Your task to perform on an android device: check battery use Image 0: 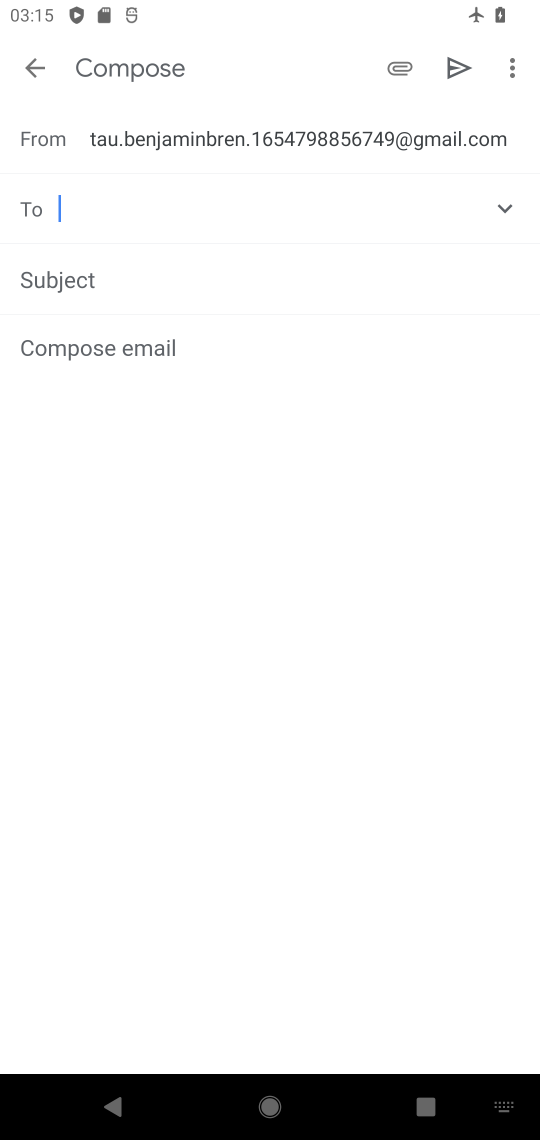
Step 0: press home button
Your task to perform on an android device: check battery use Image 1: 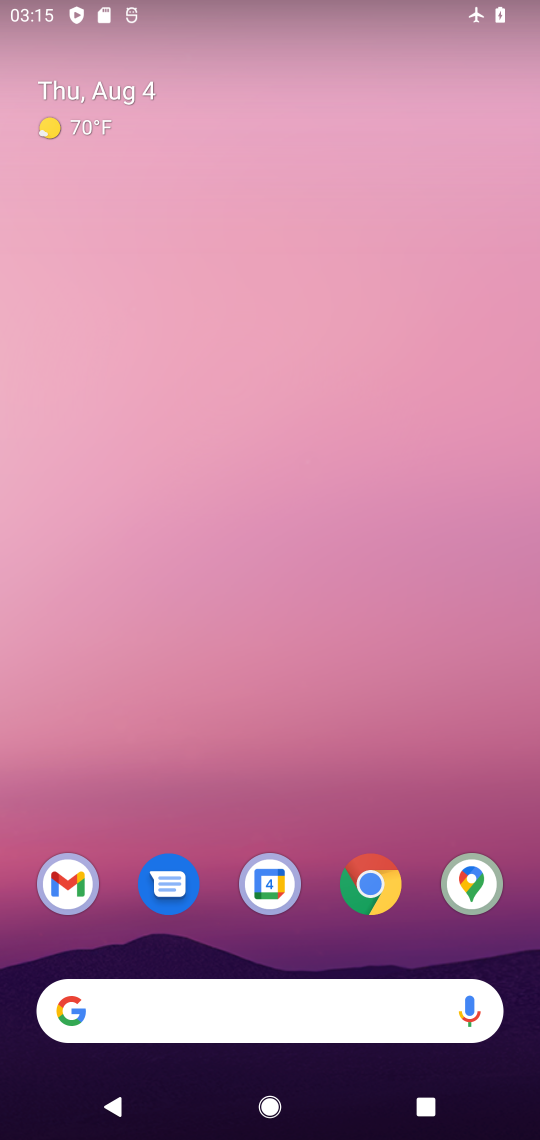
Step 1: drag from (336, 592) to (370, 191)
Your task to perform on an android device: check battery use Image 2: 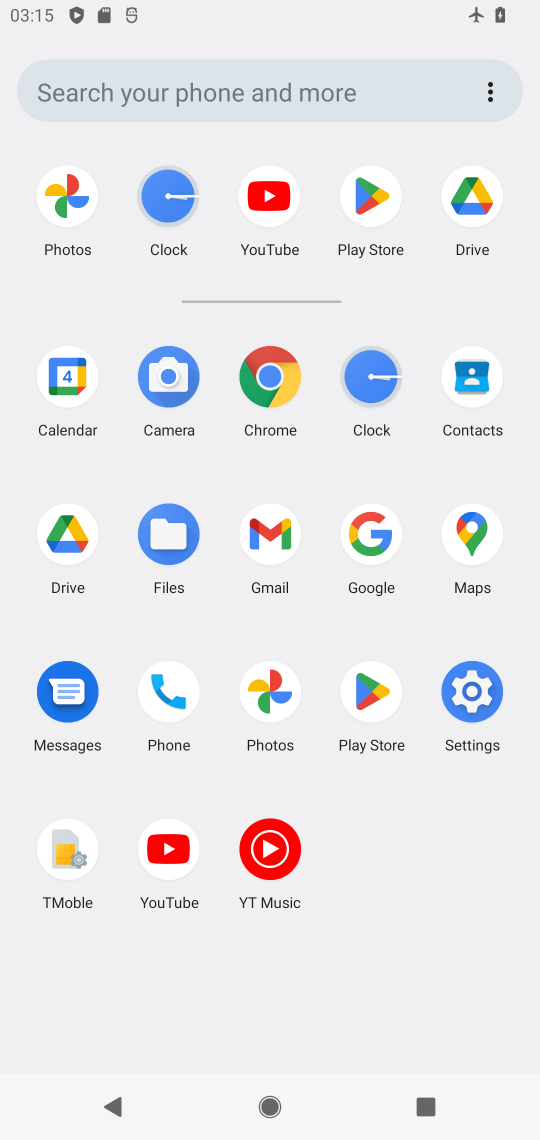
Step 2: click (460, 690)
Your task to perform on an android device: check battery use Image 3: 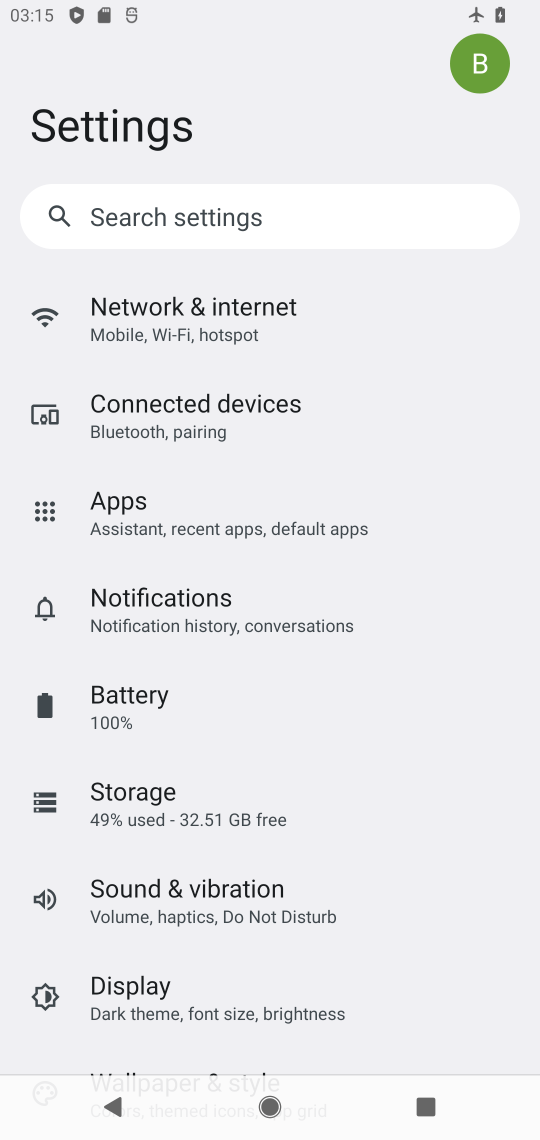
Step 3: drag from (420, 901) to (461, 695)
Your task to perform on an android device: check battery use Image 4: 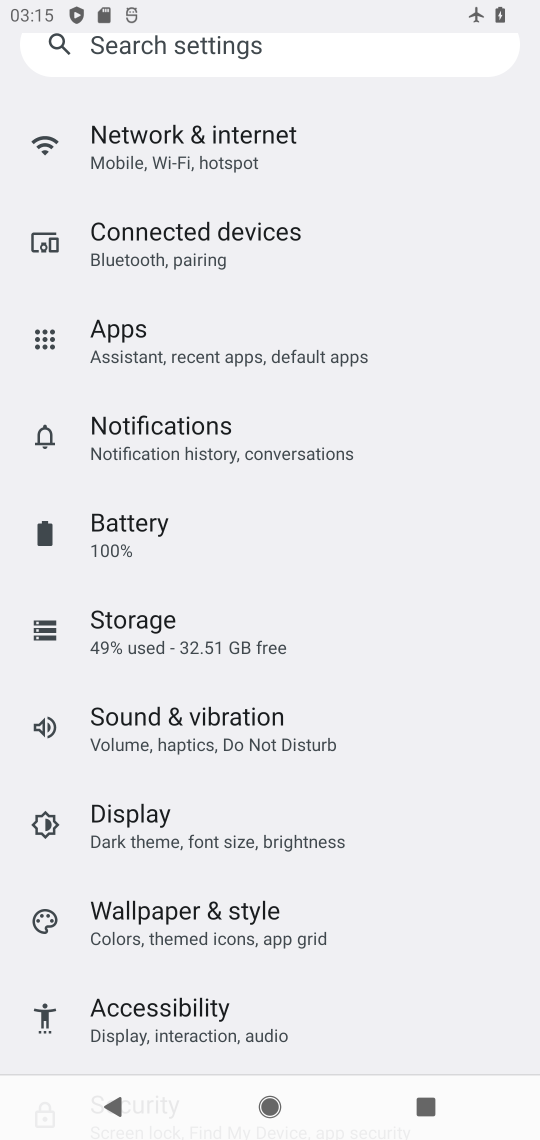
Step 4: drag from (434, 923) to (431, 717)
Your task to perform on an android device: check battery use Image 5: 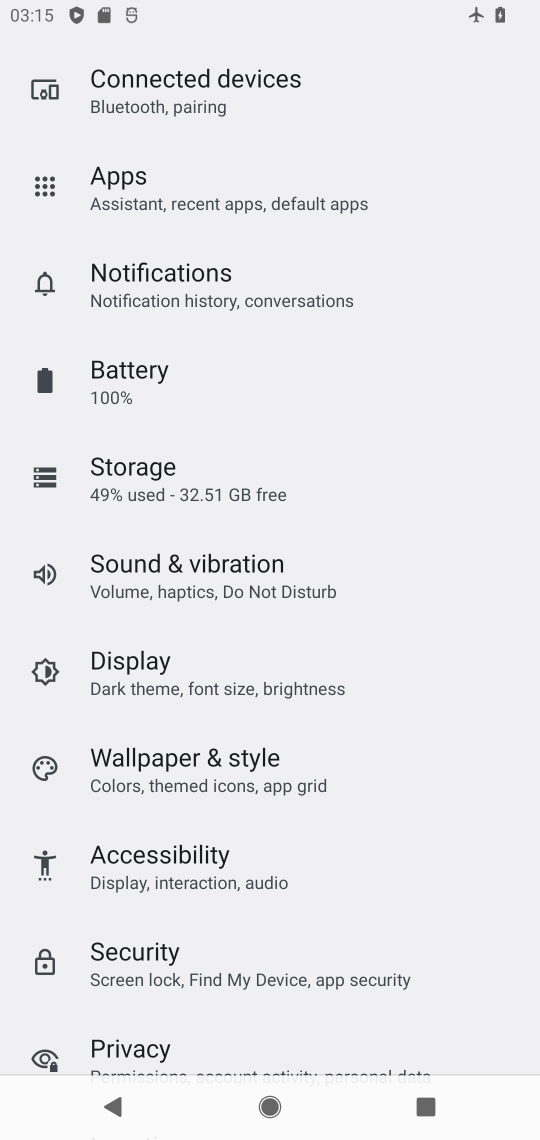
Step 5: drag from (453, 999) to (466, 791)
Your task to perform on an android device: check battery use Image 6: 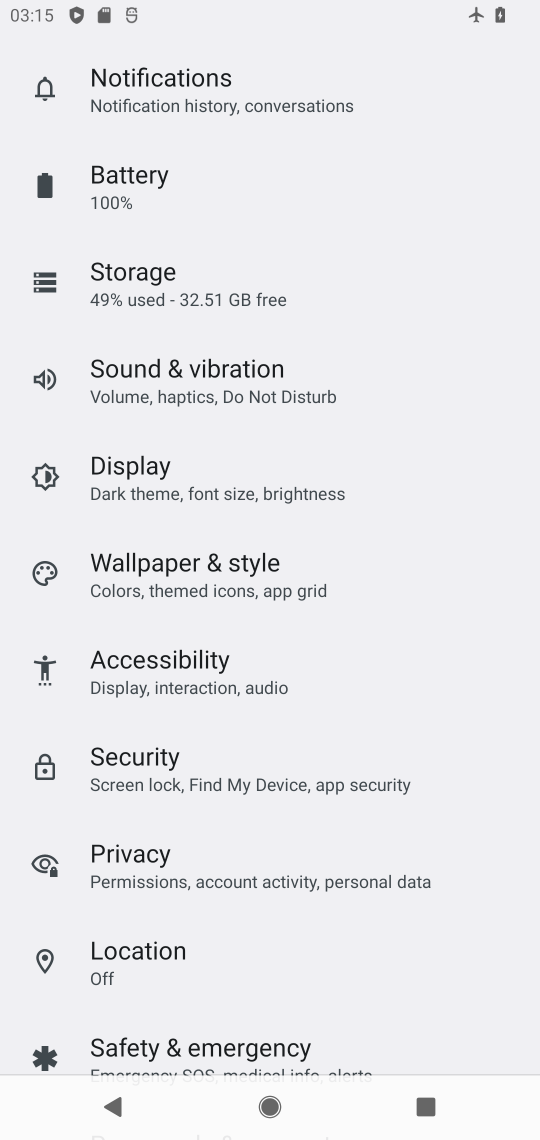
Step 6: drag from (446, 1013) to (474, 820)
Your task to perform on an android device: check battery use Image 7: 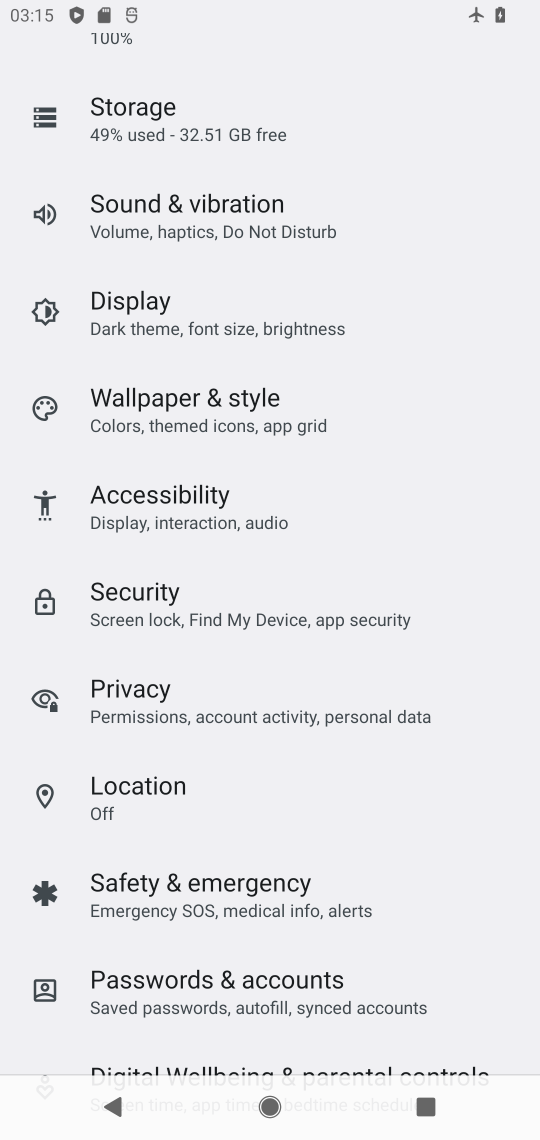
Step 7: drag from (453, 1021) to (496, 797)
Your task to perform on an android device: check battery use Image 8: 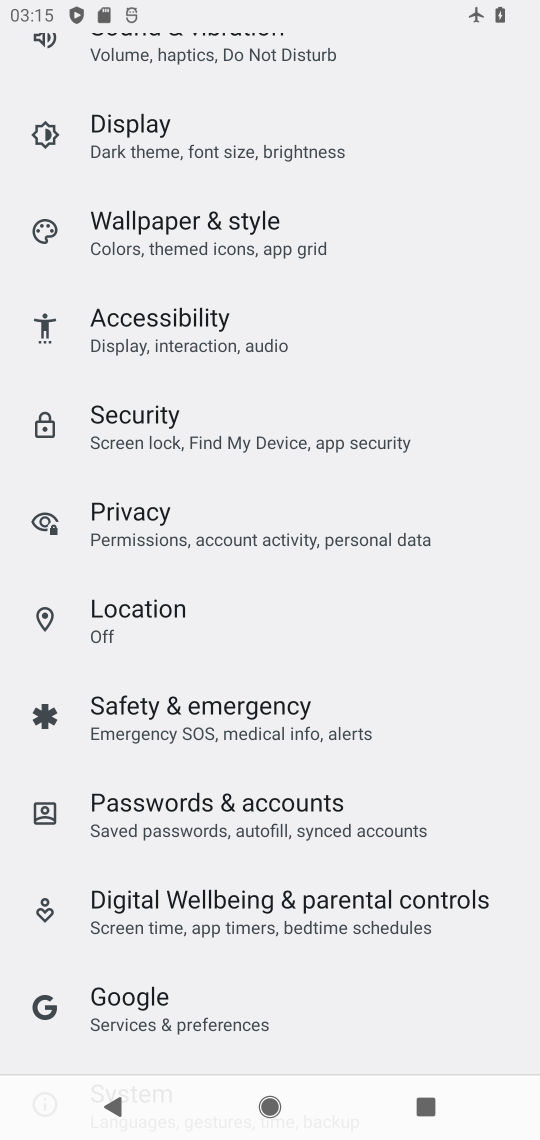
Step 8: drag from (451, 964) to (456, 735)
Your task to perform on an android device: check battery use Image 9: 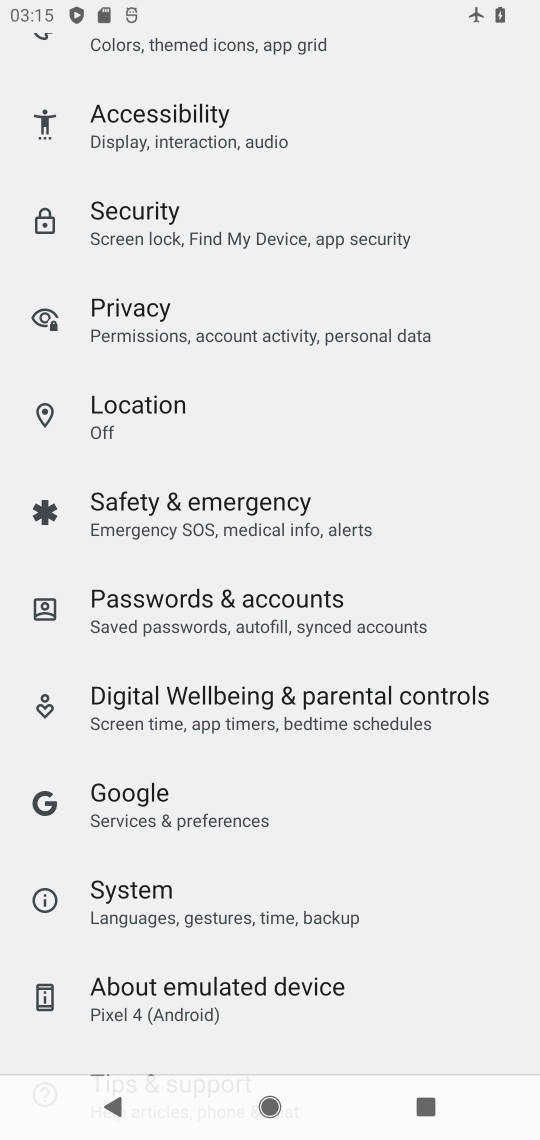
Step 9: drag from (417, 1014) to (418, 733)
Your task to perform on an android device: check battery use Image 10: 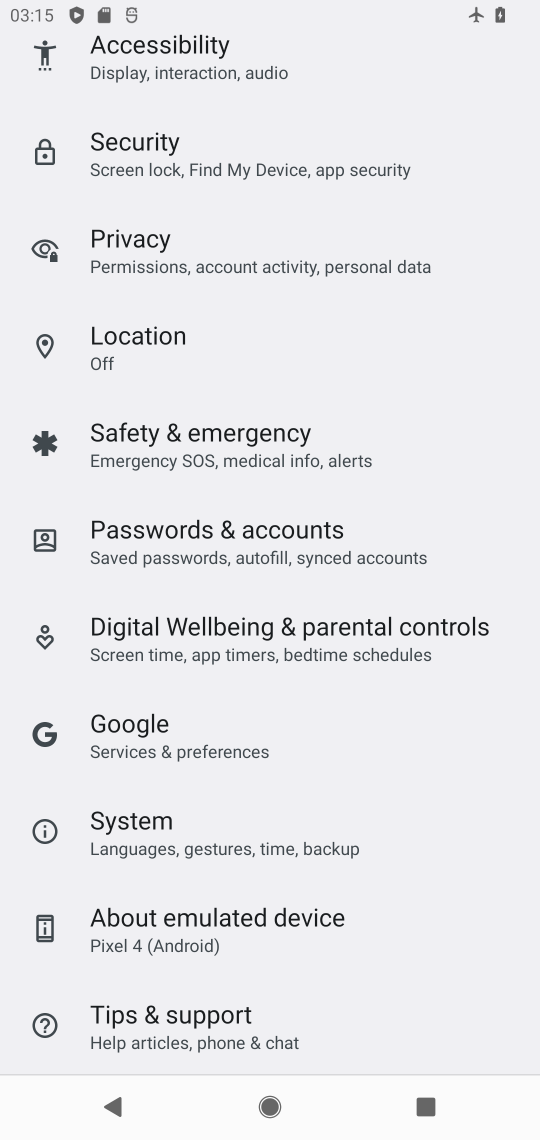
Step 10: drag from (475, 464) to (469, 735)
Your task to perform on an android device: check battery use Image 11: 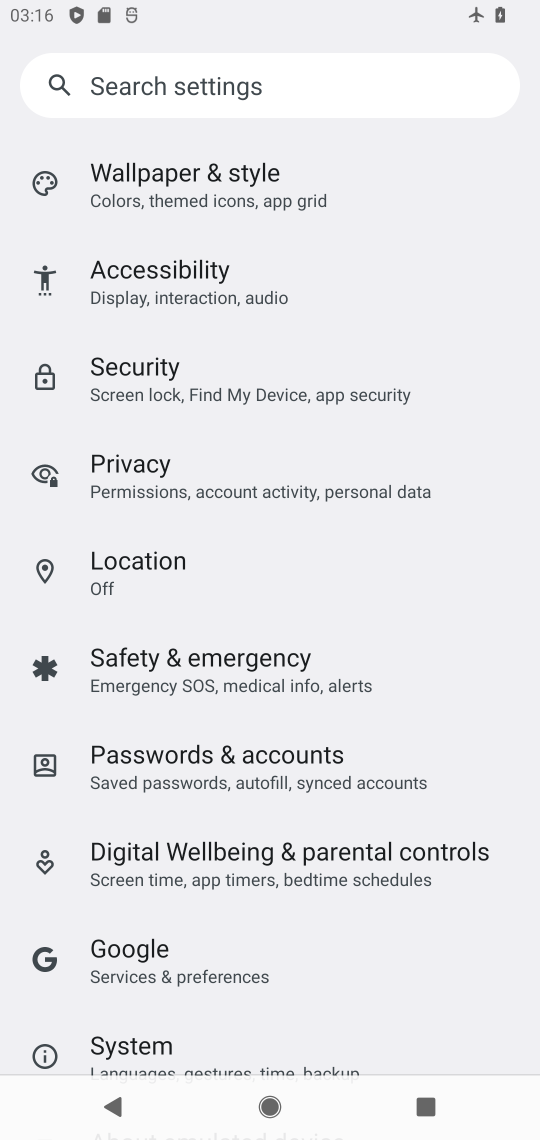
Step 11: drag from (476, 411) to (463, 608)
Your task to perform on an android device: check battery use Image 12: 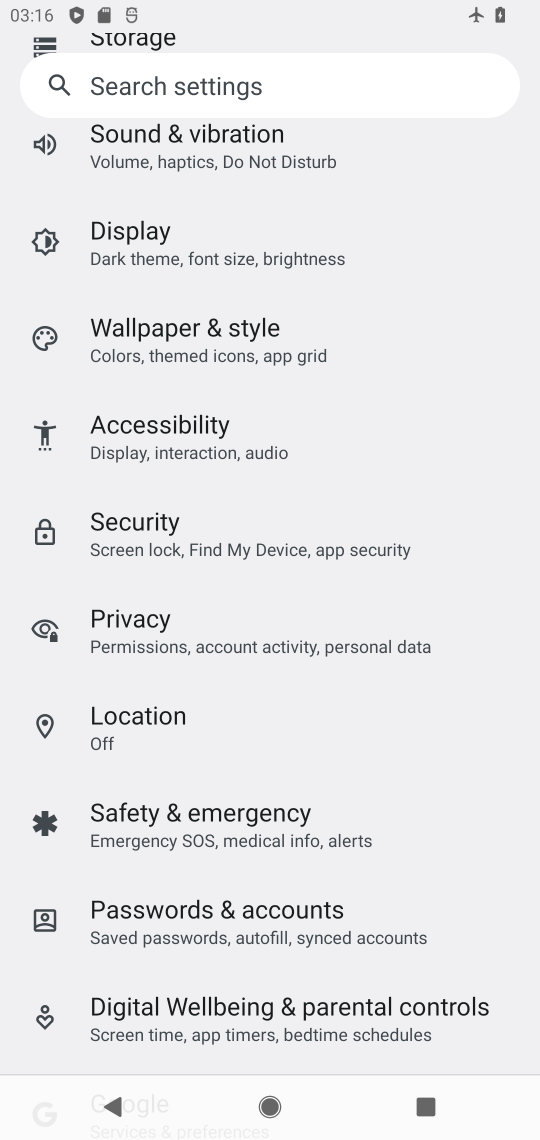
Step 12: drag from (452, 373) to (465, 623)
Your task to perform on an android device: check battery use Image 13: 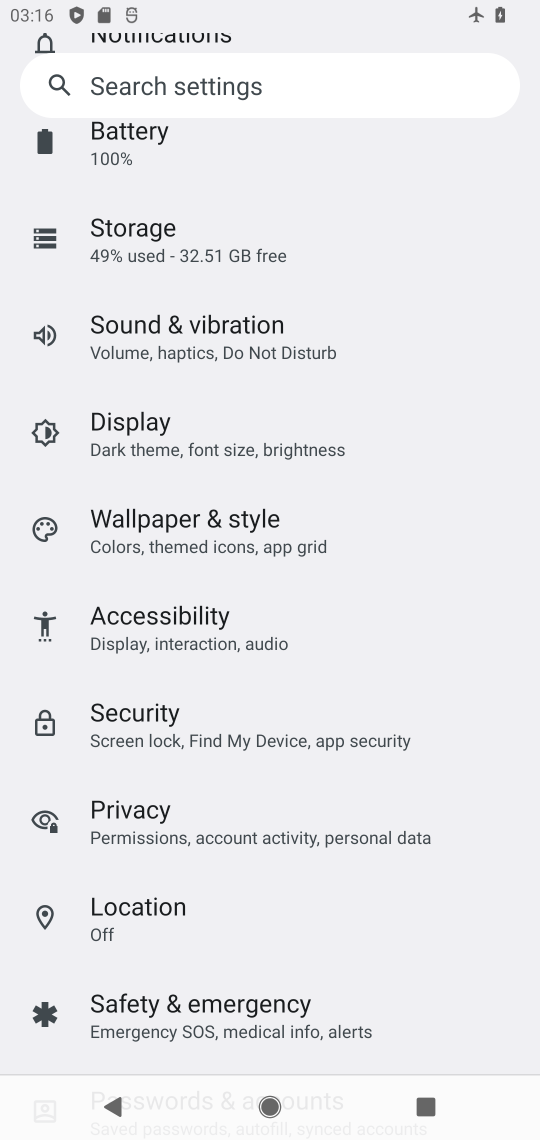
Step 13: drag from (440, 303) to (446, 645)
Your task to perform on an android device: check battery use Image 14: 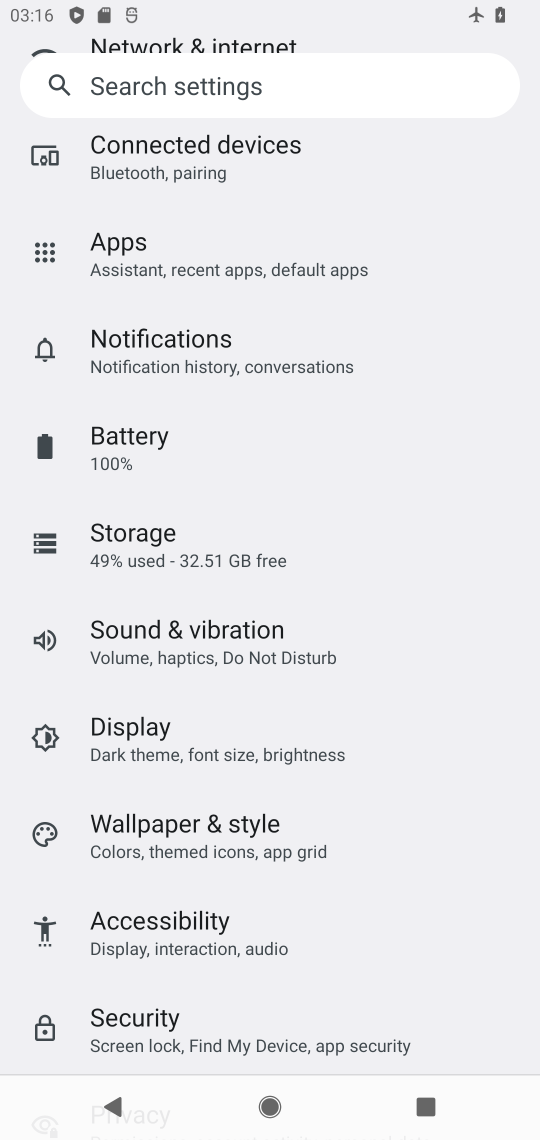
Step 14: drag from (442, 238) to (429, 567)
Your task to perform on an android device: check battery use Image 15: 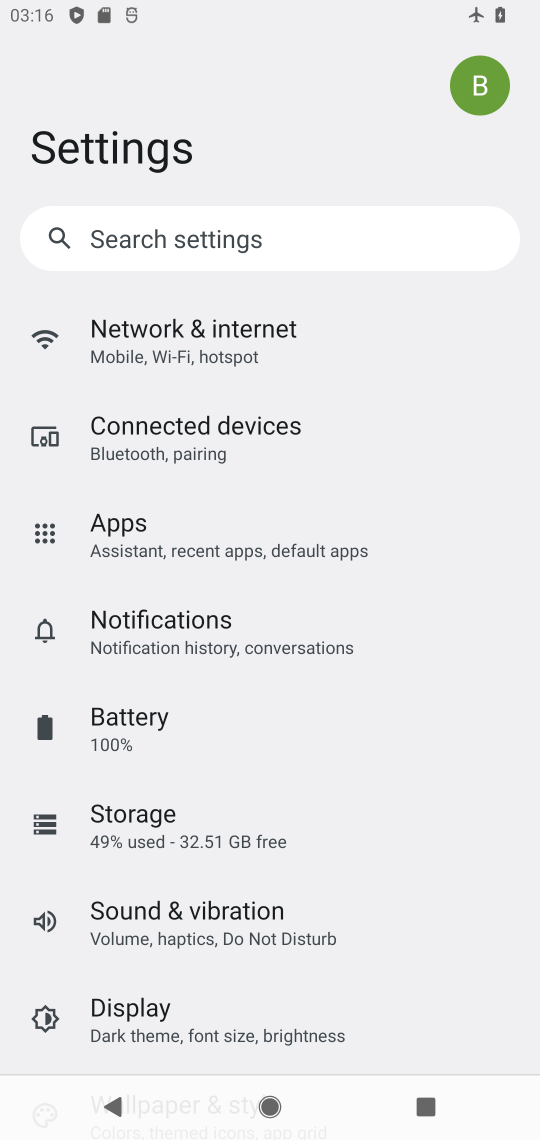
Step 15: click (293, 745)
Your task to perform on an android device: check battery use Image 16: 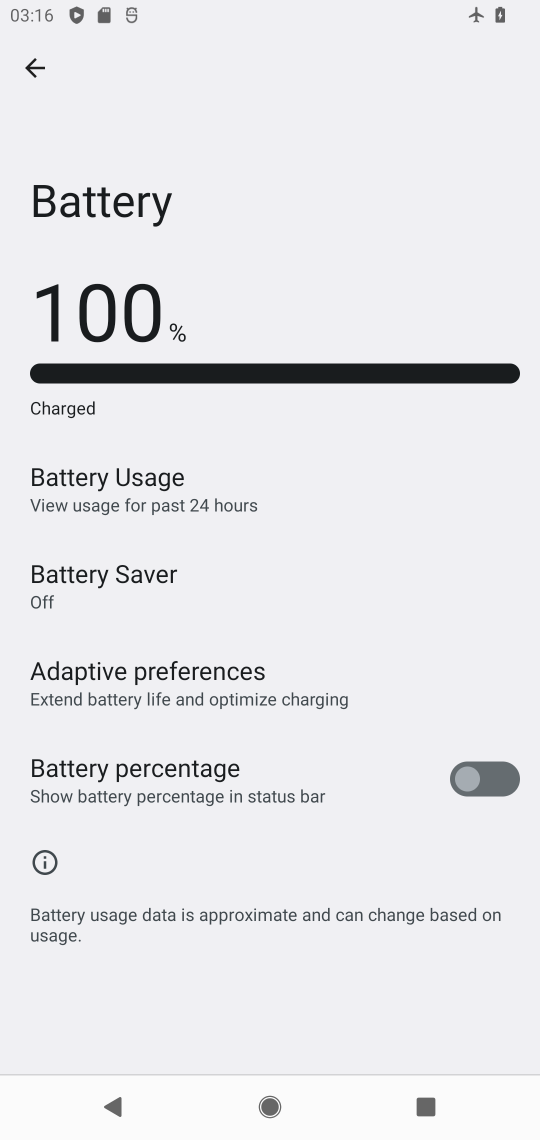
Step 16: click (245, 491)
Your task to perform on an android device: check battery use Image 17: 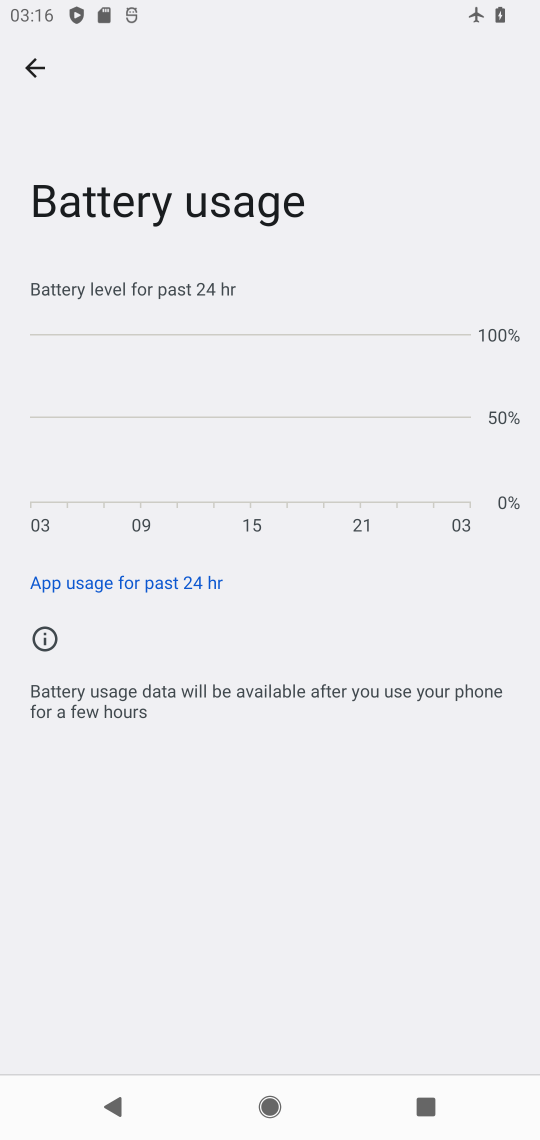
Step 17: task complete